Your task to perform on an android device: turn on data saver in the chrome app Image 0: 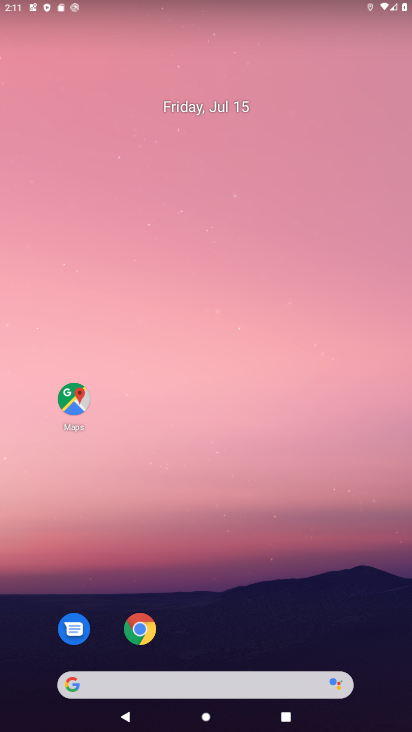
Step 0: drag from (228, 642) to (211, 112)
Your task to perform on an android device: turn on data saver in the chrome app Image 1: 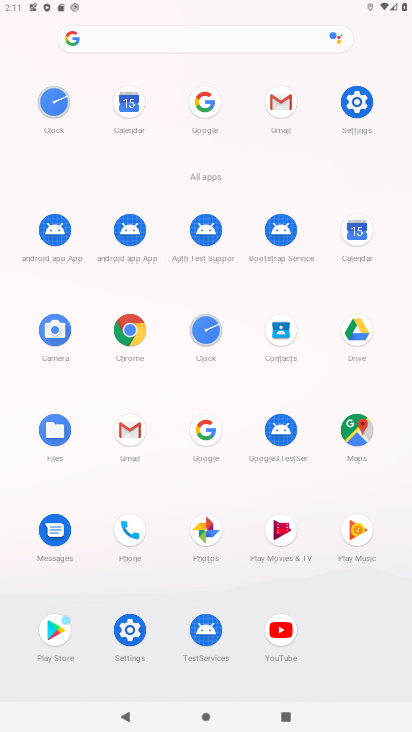
Step 1: click (128, 331)
Your task to perform on an android device: turn on data saver in the chrome app Image 2: 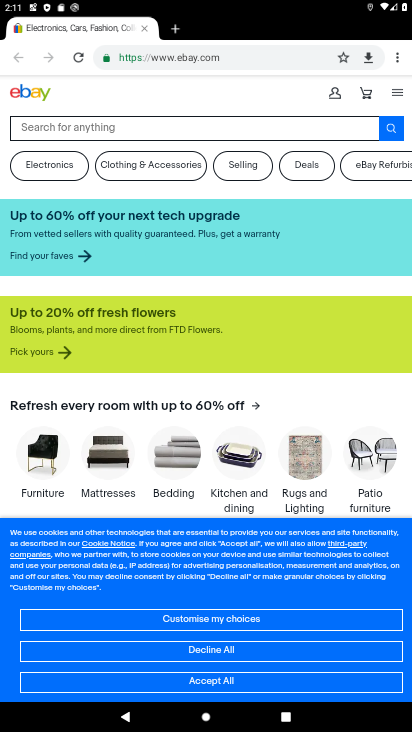
Step 2: click (395, 57)
Your task to perform on an android device: turn on data saver in the chrome app Image 3: 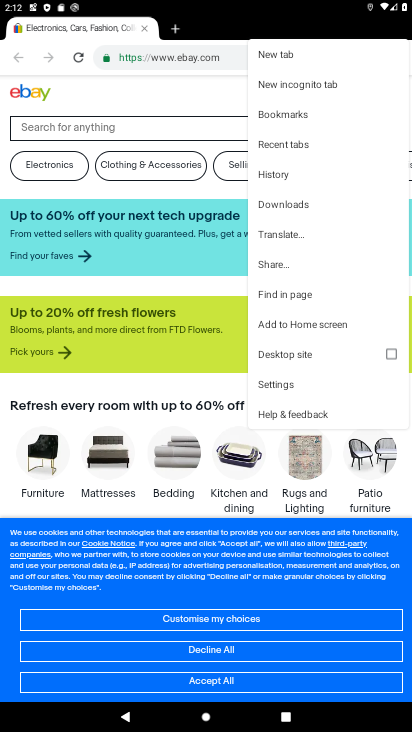
Step 3: click (296, 384)
Your task to perform on an android device: turn on data saver in the chrome app Image 4: 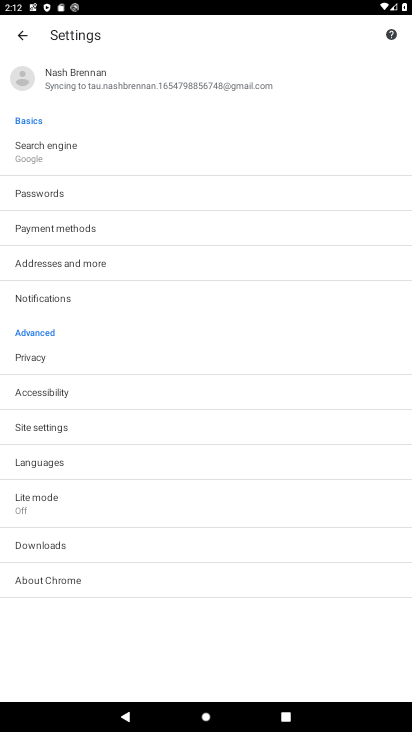
Step 4: click (78, 509)
Your task to perform on an android device: turn on data saver in the chrome app Image 5: 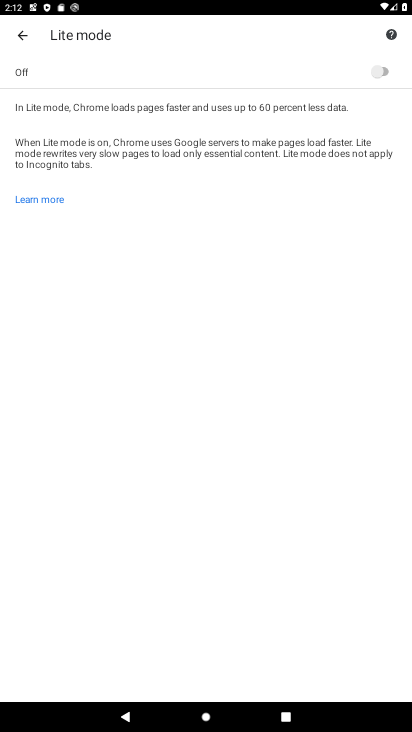
Step 5: click (390, 71)
Your task to perform on an android device: turn on data saver in the chrome app Image 6: 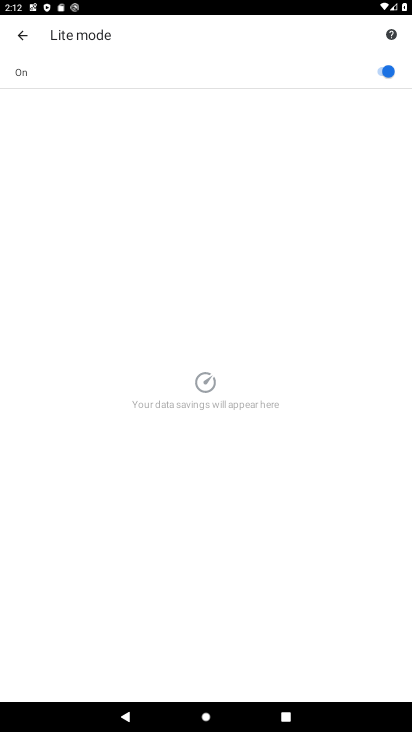
Step 6: task complete